Your task to perform on an android device: check out phone information Image 0: 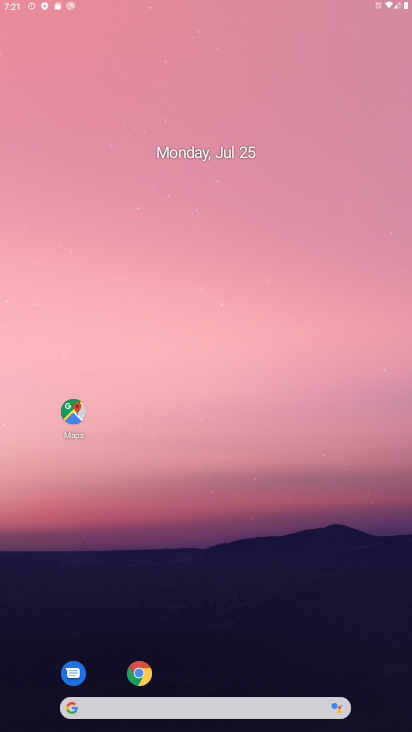
Step 0: drag from (340, 599) to (169, 20)
Your task to perform on an android device: check out phone information Image 1: 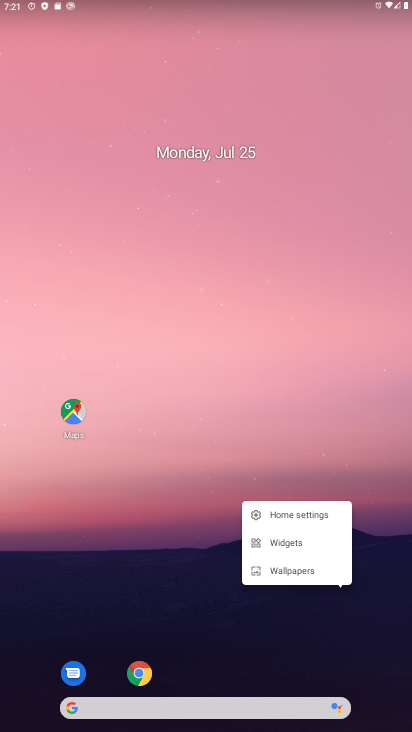
Step 1: click (386, 568)
Your task to perform on an android device: check out phone information Image 2: 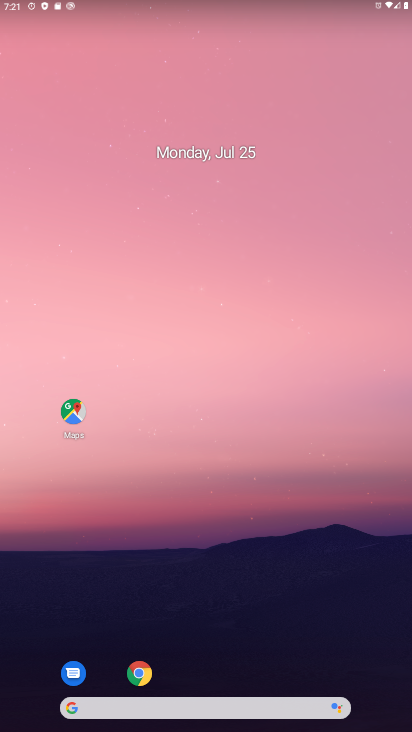
Step 2: drag from (343, 671) to (181, 45)
Your task to perform on an android device: check out phone information Image 3: 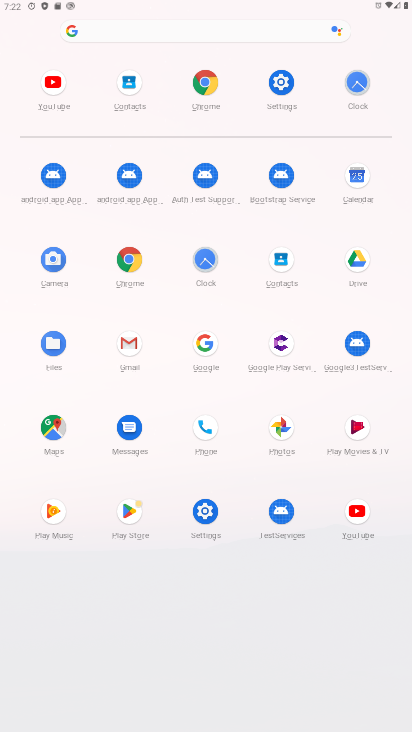
Step 3: click (285, 85)
Your task to perform on an android device: check out phone information Image 4: 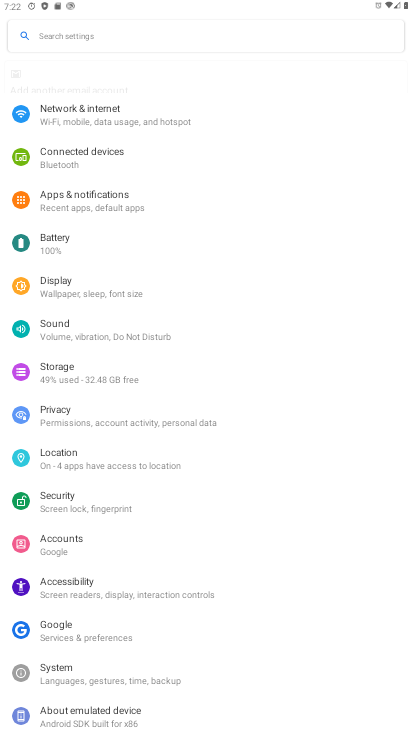
Step 4: task complete